Your task to perform on an android device: check out phone information Image 0: 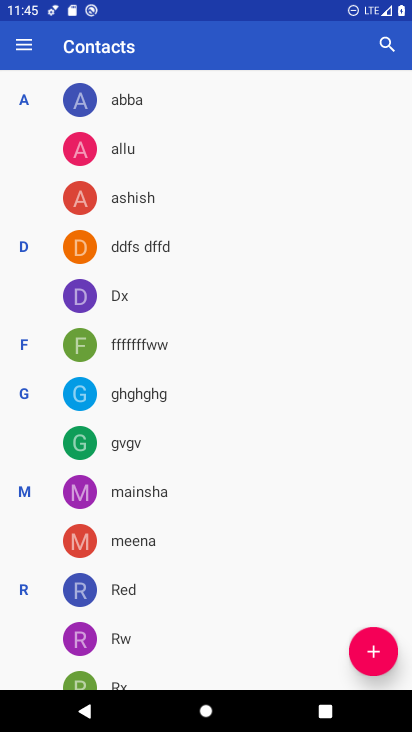
Step 0: press home button
Your task to perform on an android device: check out phone information Image 1: 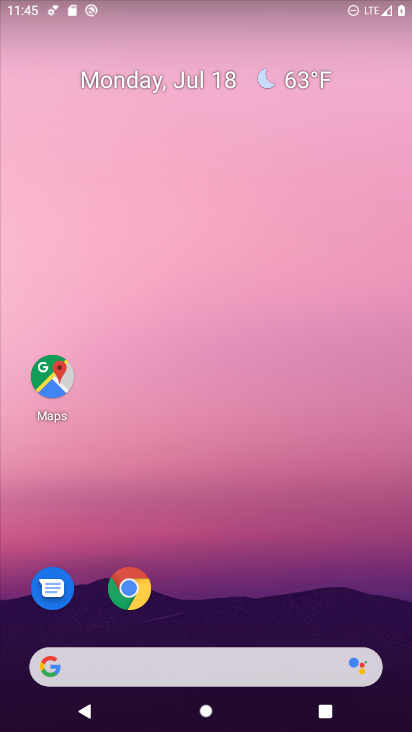
Step 1: drag from (172, 654) to (170, 313)
Your task to perform on an android device: check out phone information Image 2: 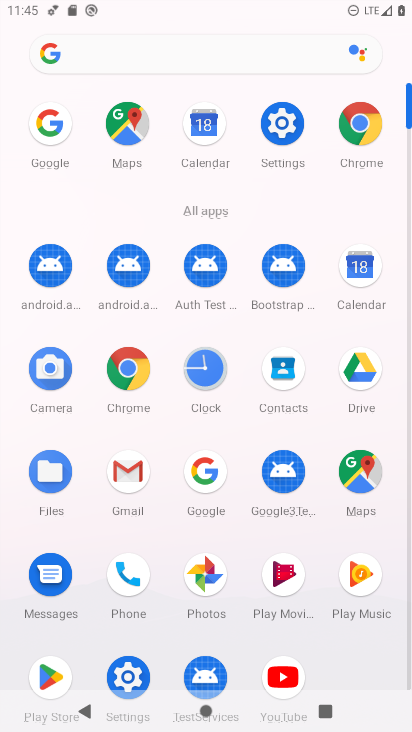
Step 2: click (118, 579)
Your task to perform on an android device: check out phone information Image 3: 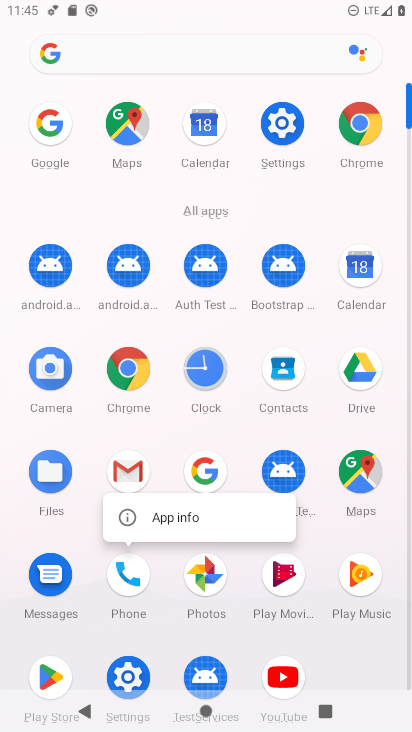
Step 3: click (121, 522)
Your task to perform on an android device: check out phone information Image 4: 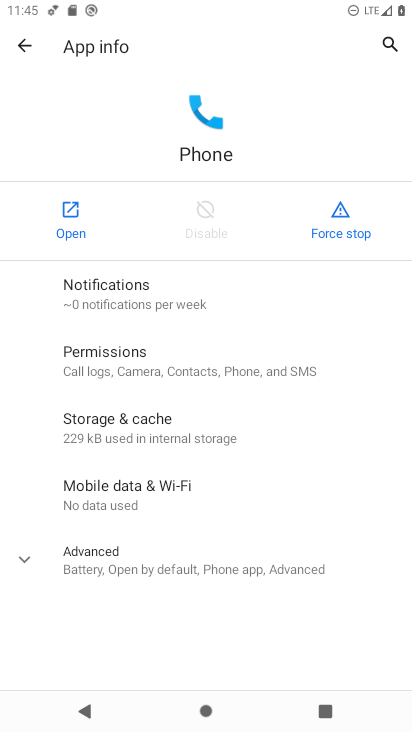
Step 4: click (97, 558)
Your task to perform on an android device: check out phone information Image 5: 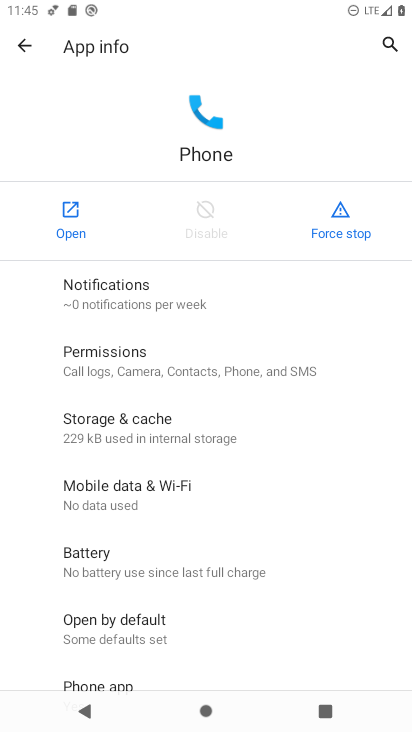
Step 5: task complete